Your task to perform on an android device: make emails show in primary in the gmail app Image 0: 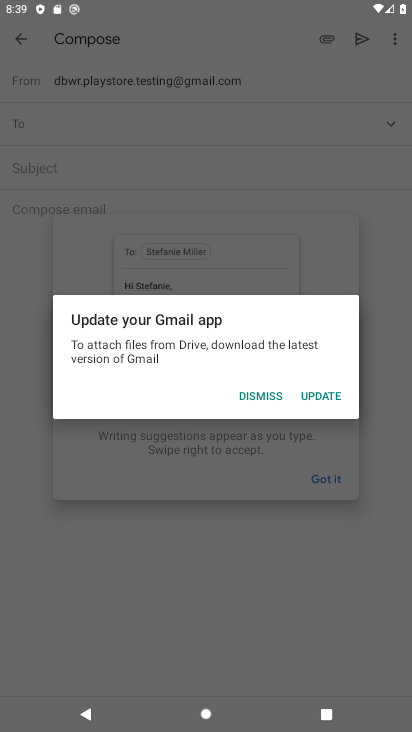
Step 0: press home button
Your task to perform on an android device: make emails show in primary in the gmail app Image 1: 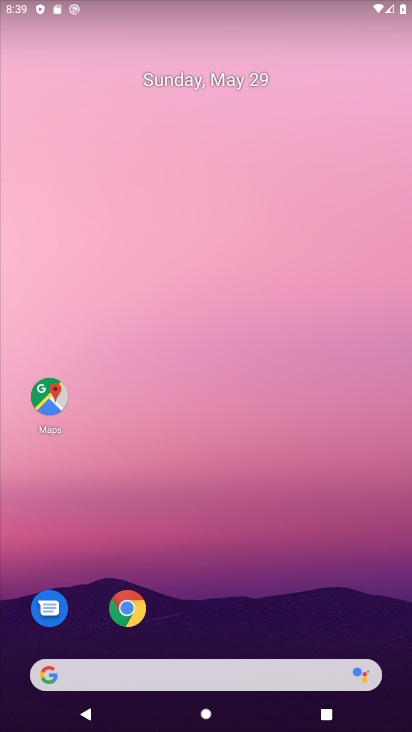
Step 1: drag from (377, 623) to (370, 123)
Your task to perform on an android device: make emails show in primary in the gmail app Image 2: 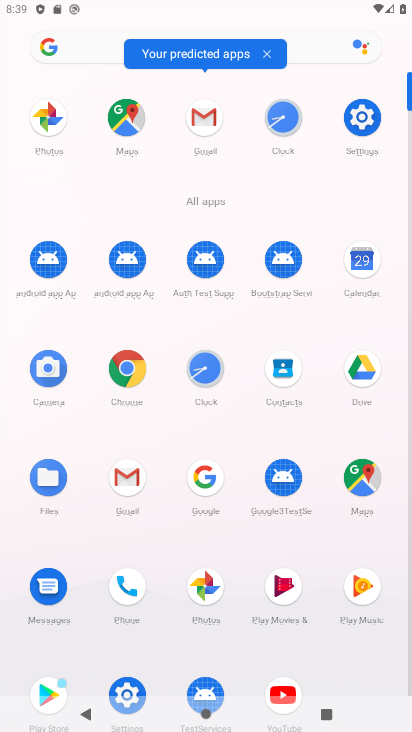
Step 2: click (127, 490)
Your task to perform on an android device: make emails show in primary in the gmail app Image 3: 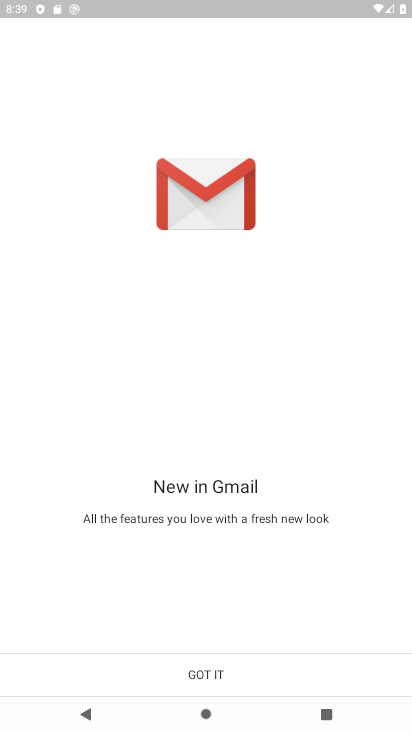
Step 3: click (197, 671)
Your task to perform on an android device: make emails show in primary in the gmail app Image 4: 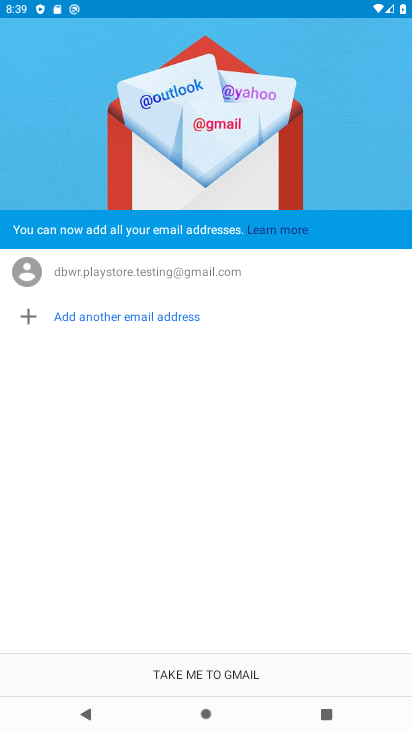
Step 4: click (197, 671)
Your task to perform on an android device: make emails show in primary in the gmail app Image 5: 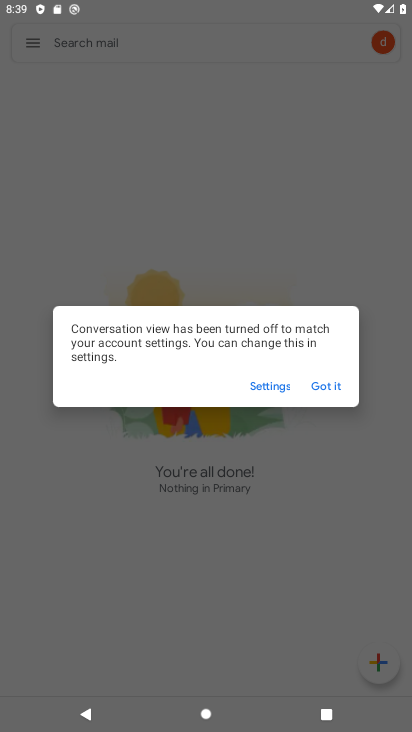
Step 5: click (321, 392)
Your task to perform on an android device: make emails show in primary in the gmail app Image 6: 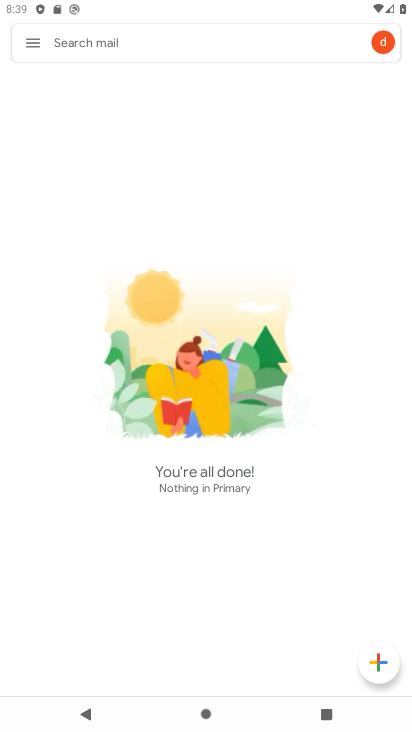
Step 6: click (30, 55)
Your task to perform on an android device: make emails show in primary in the gmail app Image 7: 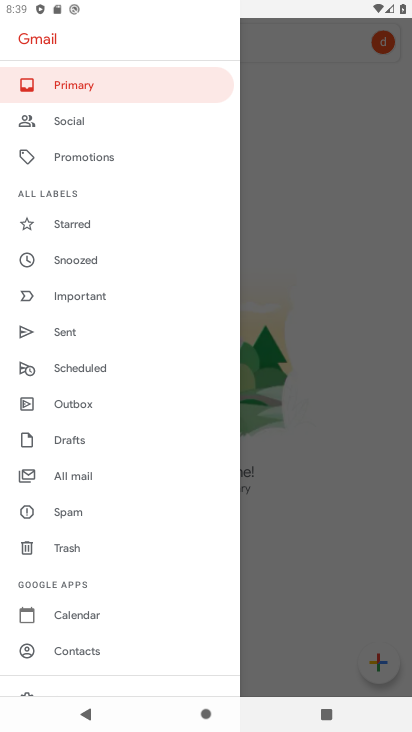
Step 7: drag from (164, 520) to (158, 390)
Your task to perform on an android device: make emails show in primary in the gmail app Image 8: 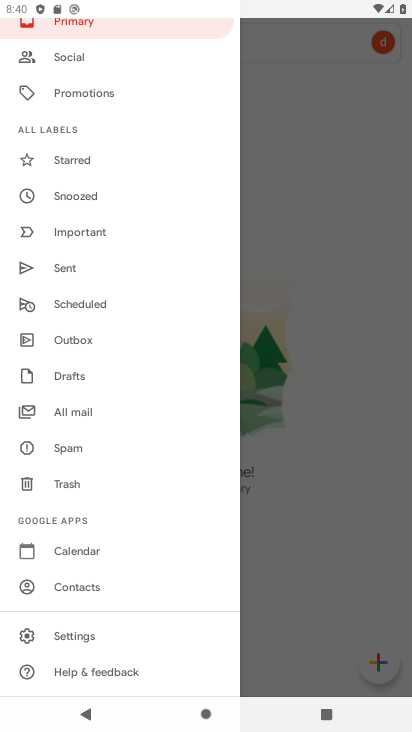
Step 8: click (137, 635)
Your task to perform on an android device: make emails show in primary in the gmail app Image 9: 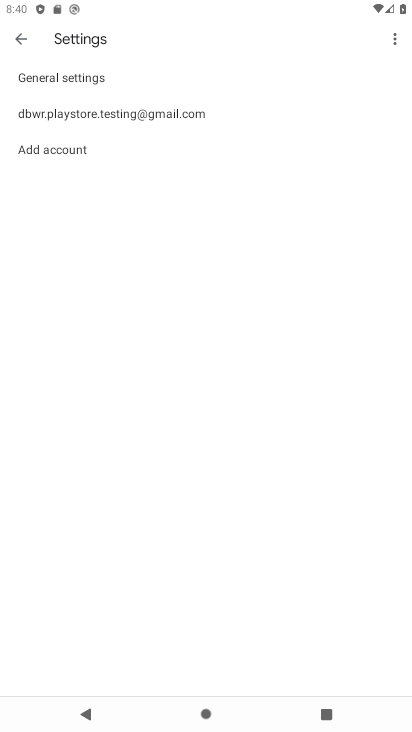
Step 9: click (219, 118)
Your task to perform on an android device: make emails show in primary in the gmail app Image 10: 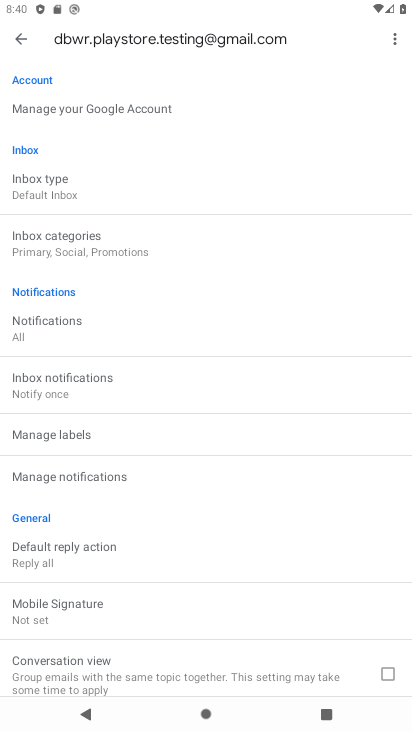
Step 10: drag from (287, 171) to (319, 330)
Your task to perform on an android device: make emails show in primary in the gmail app Image 11: 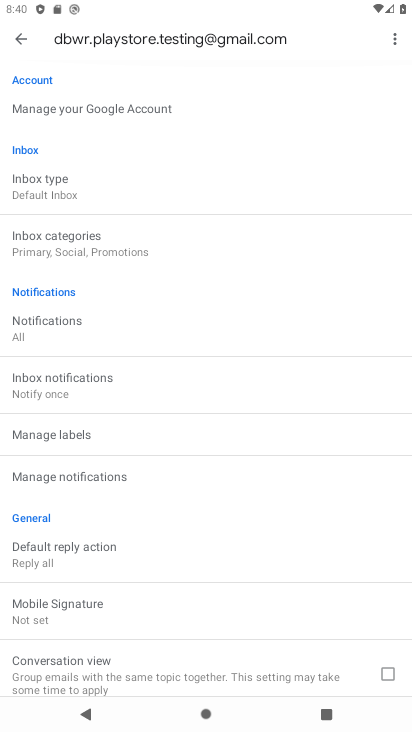
Step 11: drag from (316, 387) to (300, 298)
Your task to perform on an android device: make emails show in primary in the gmail app Image 12: 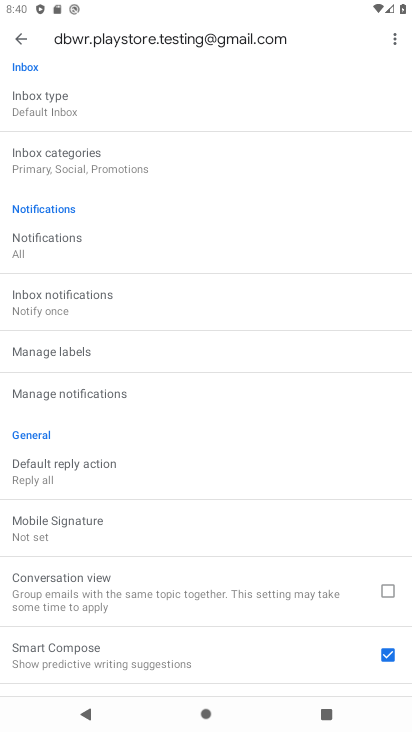
Step 12: drag from (252, 189) to (262, 317)
Your task to perform on an android device: make emails show in primary in the gmail app Image 13: 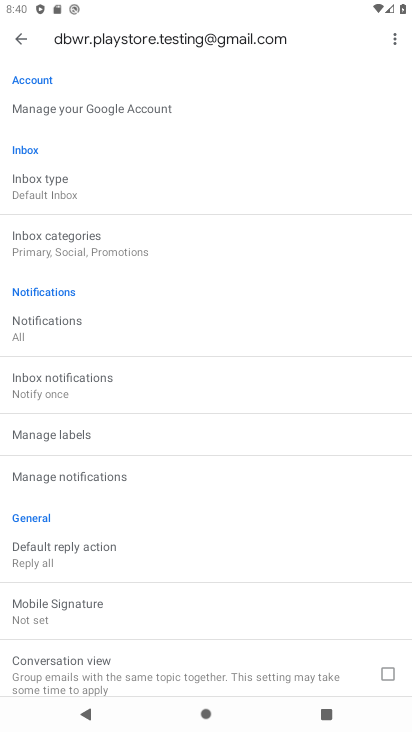
Step 13: click (160, 258)
Your task to perform on an android device: make emails show in primary in the gmail app Image 14: 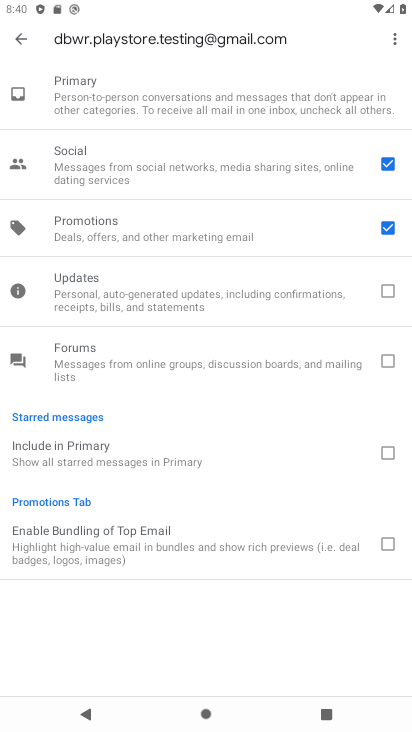
Step 14: click (383, 224)
Your task to perform on an android device: make emails show in primary in the gmail app Image 15: 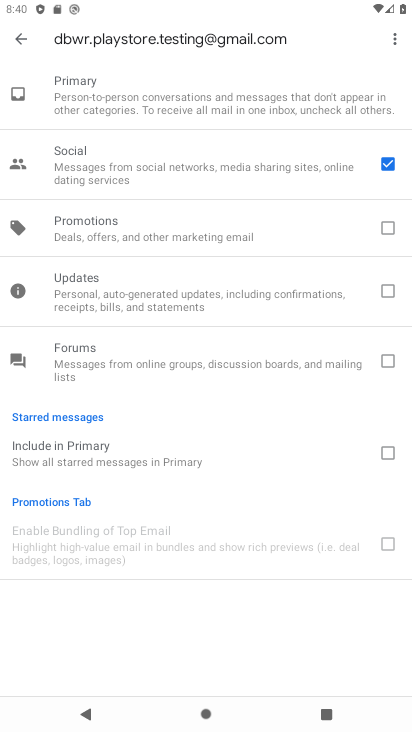
Step 15: click (391, 166)
Your task to perform on an android device: make emails show in primary in the gmail app Image 16: 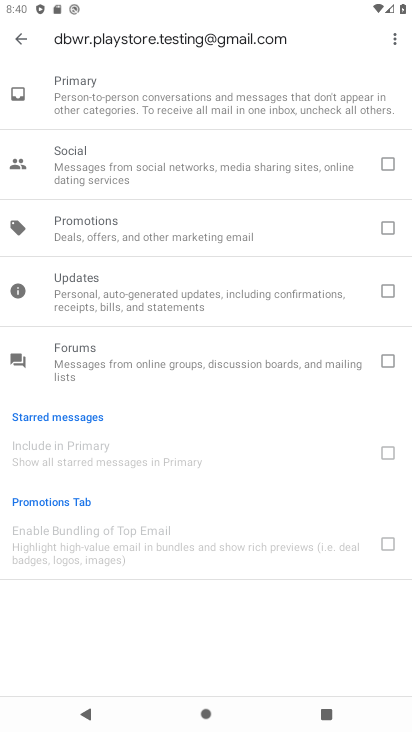
Step 16: task complete